Your task to perform on an android device: uninstall "Google Maps" Image 0: 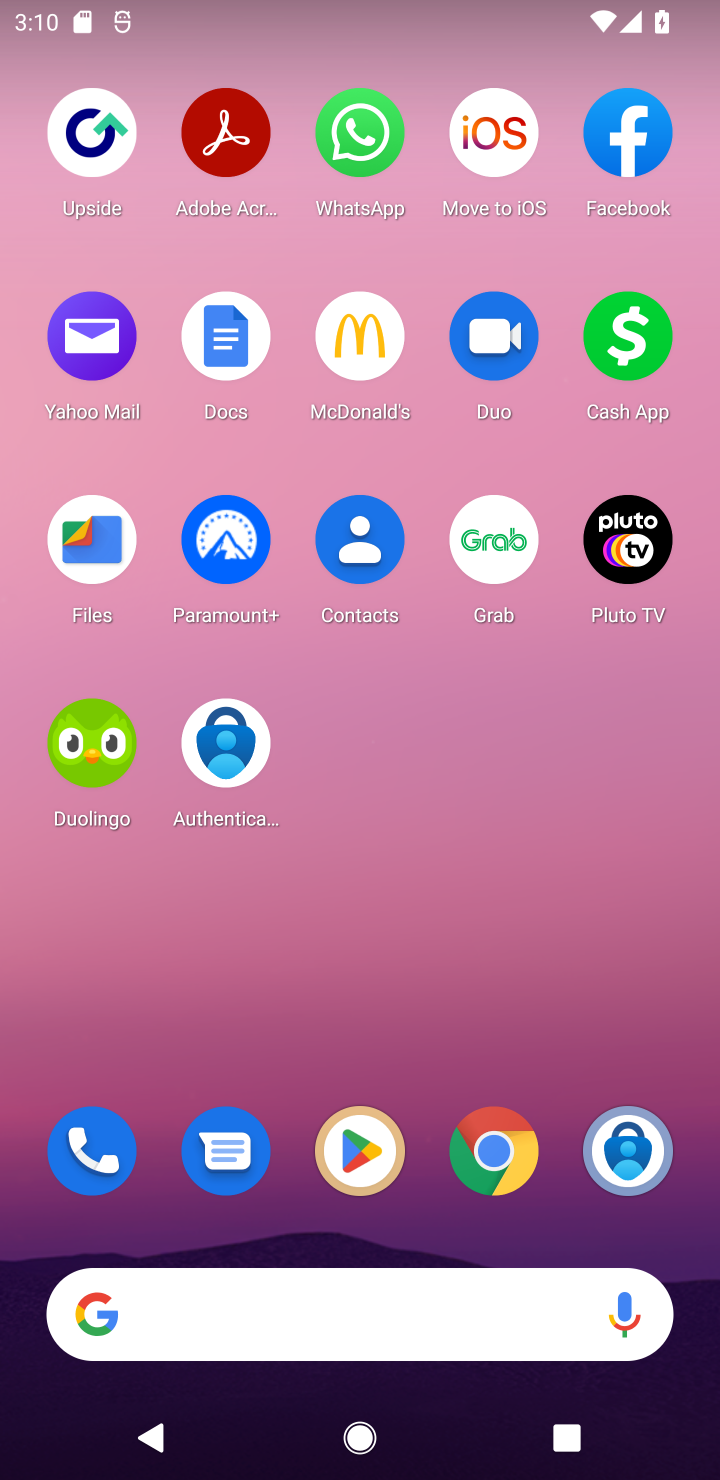
Step 0: drag from (247, 997) to (293, 14)
Your task to perform on an android device: uninstall "Google Maps" Image 1: 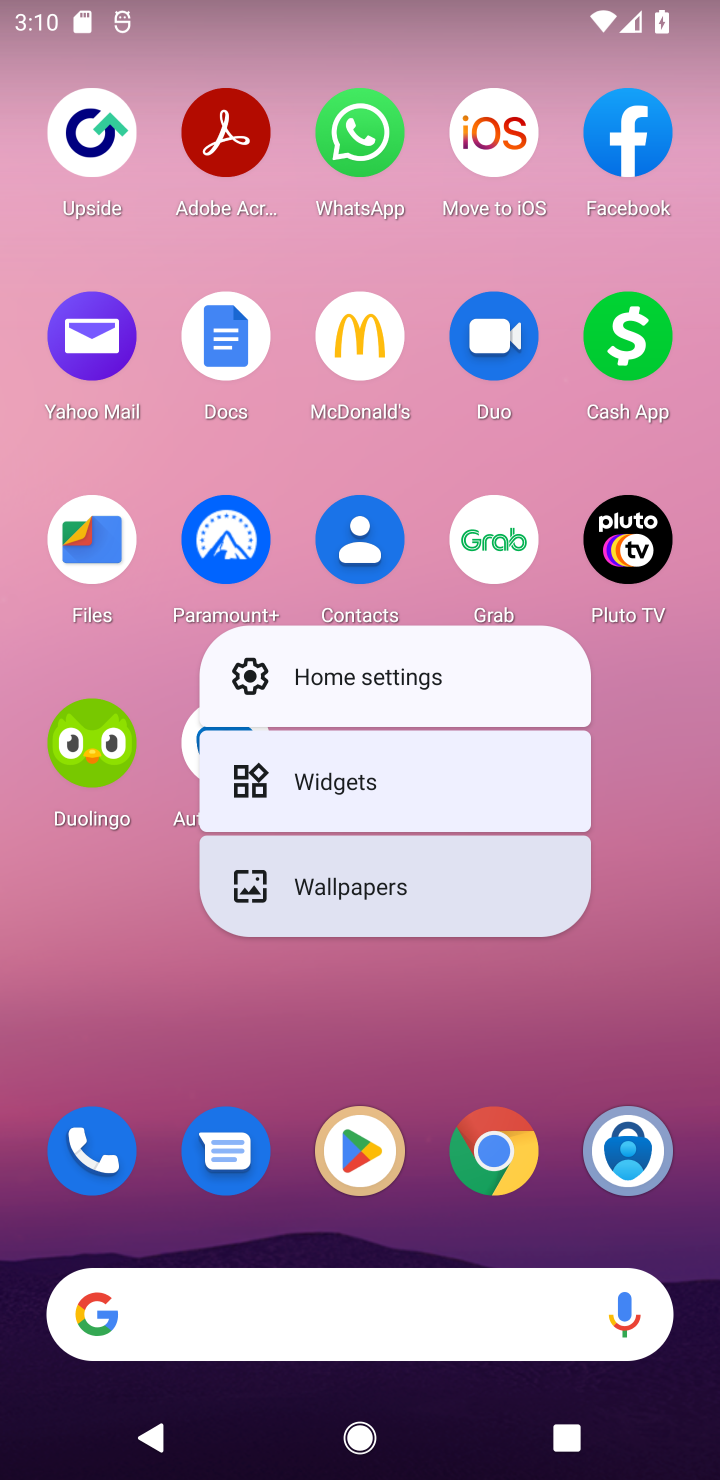
Step 1: click (139, 982)
Your task to perform on an android device: uninstall "Google Maps" Image 2: 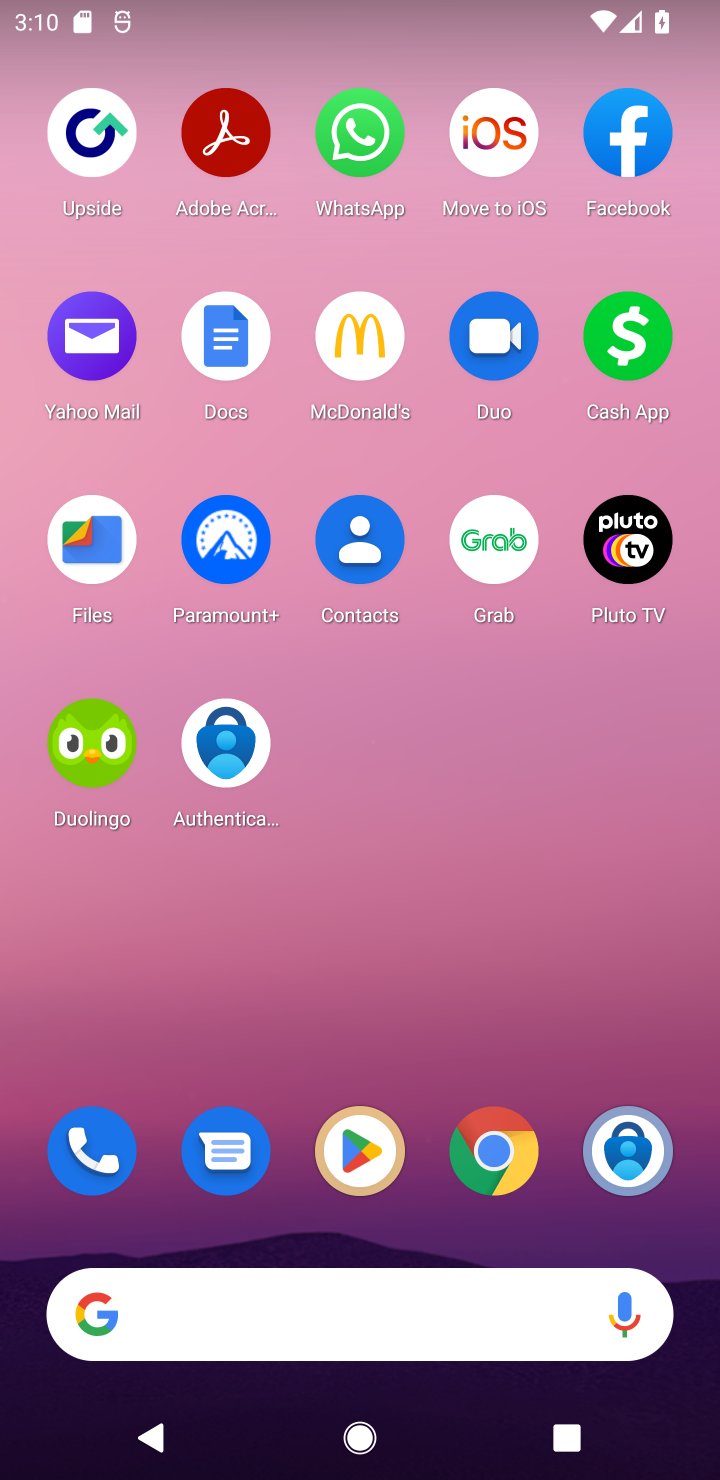
Step 2: drag from (417, 1222) to (326, 130)
Your task to perform on an android device: uninstall "Google Maps" Image 3: 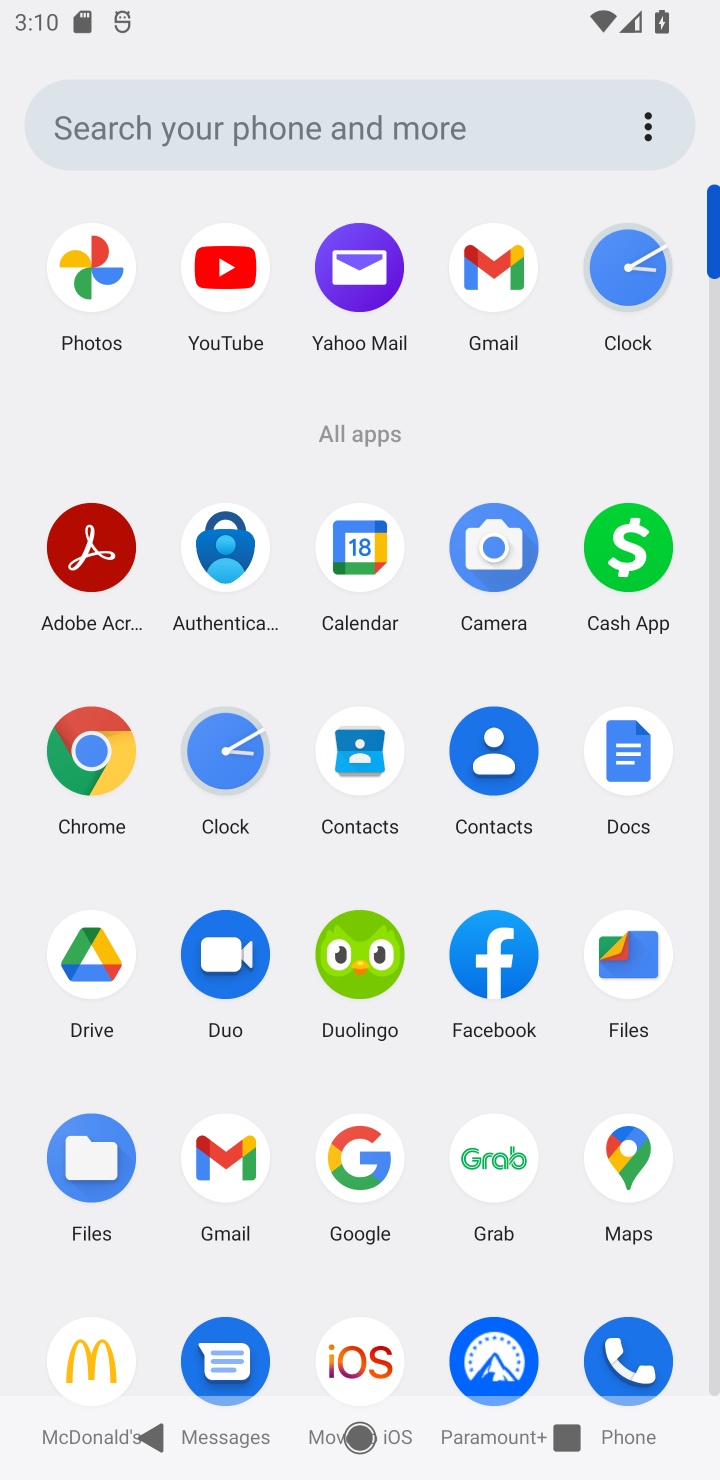
Step 3: click (671, 1179)
Your task to perform on an android device: uninstall "Google Maps" Image 4: 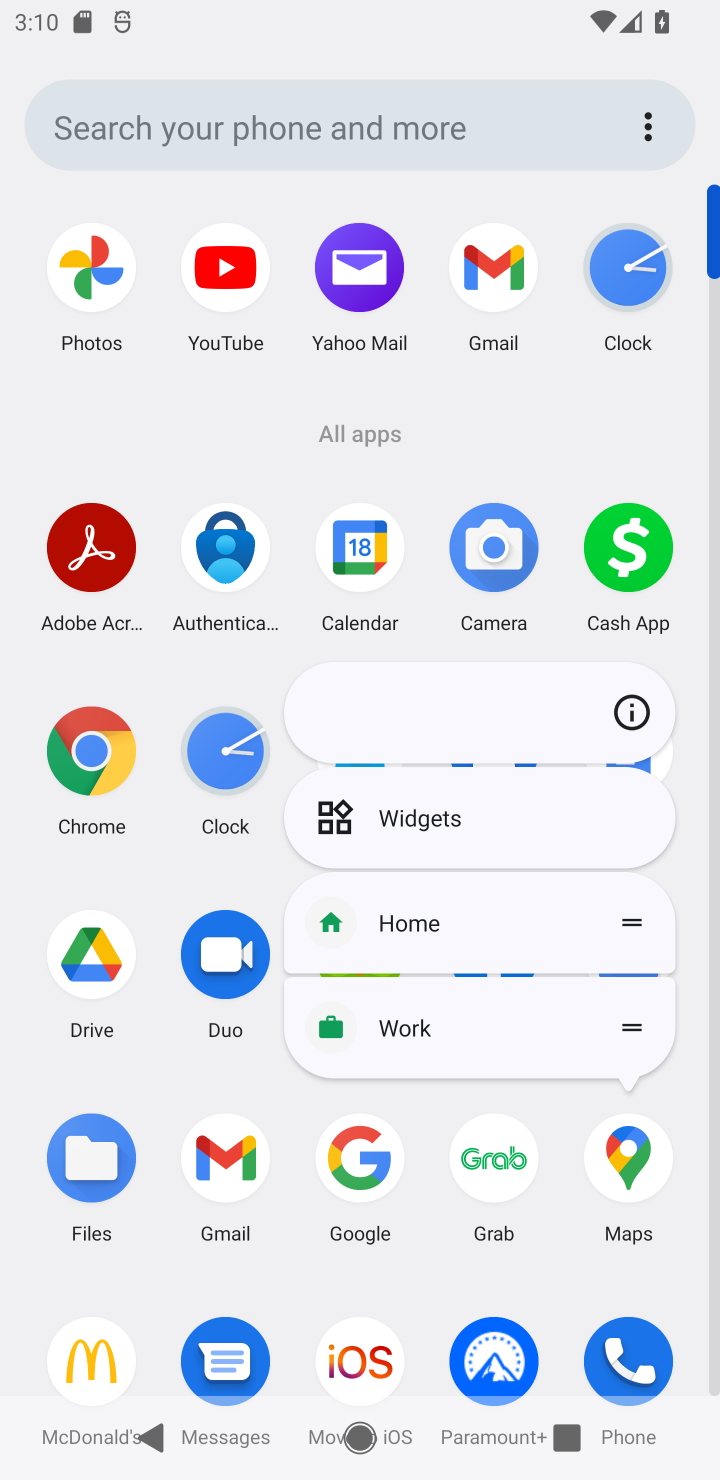
Step 4: click (610, 724)
Your task to perform on an android device: uninstall "Google Maps" Image 5: 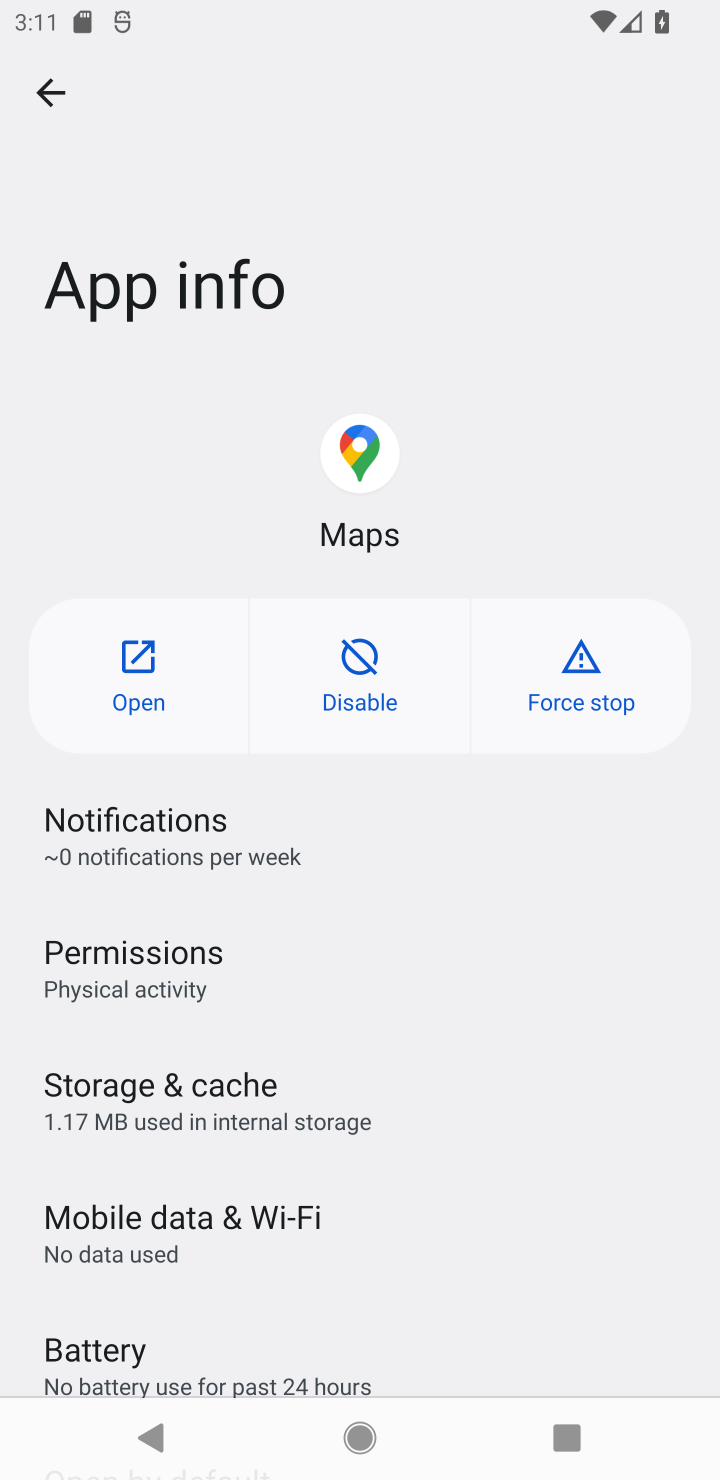
Step 5: task complete